Your task to perform on an android device: show emergency info Image 0: 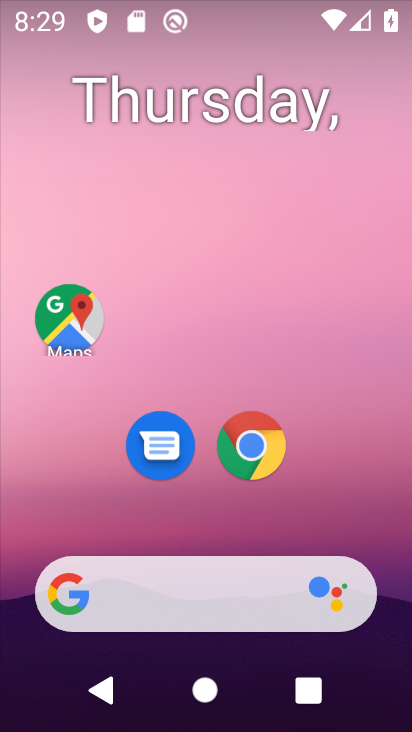
Step 0: drag from (187, 572) to (286, 102)
Your task to perform on an android device: show emergency info Image 1: 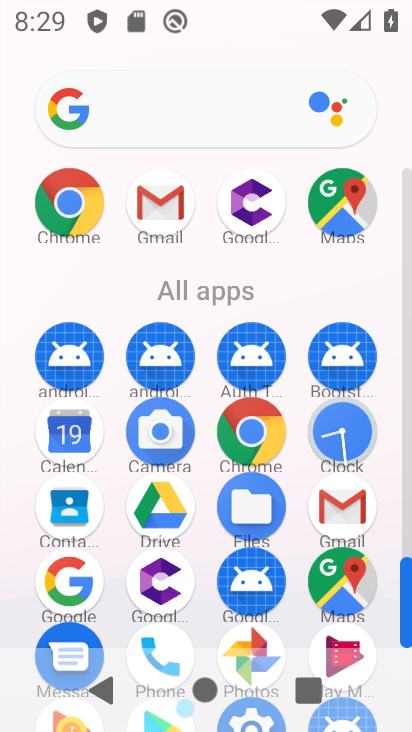
Step 1: drag from (198, 623) to (259, 231)
Your task to perform on an android device: show emergency info Image 2: 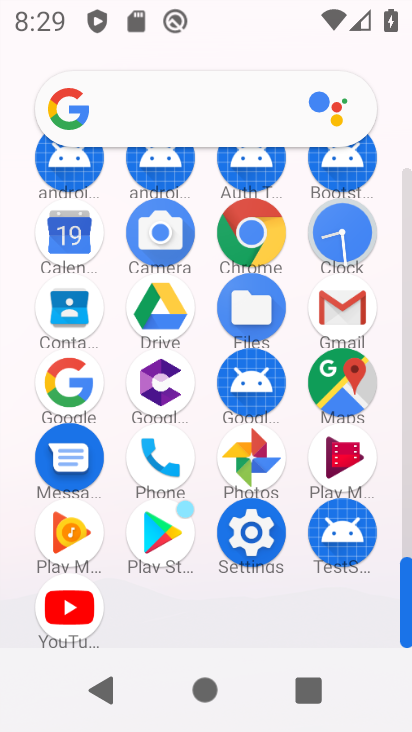
Step 2: click (250, 530)
Your task to perform on an android device: show emergency info Image 3: 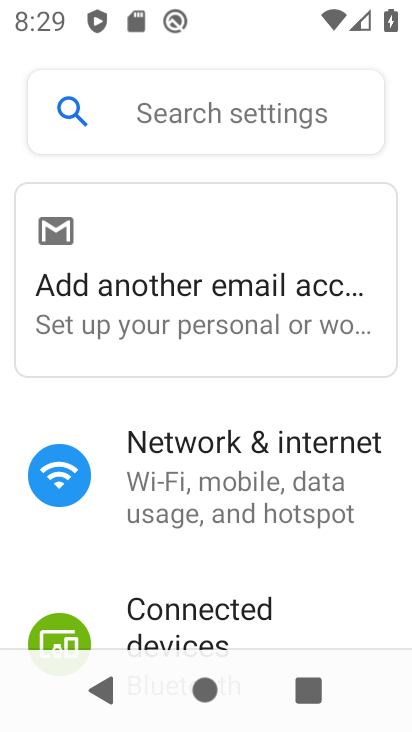
Step 3: drag from (216, 548) to (277, 145)
Your task to perform on an android device: show emergency info Image 4: 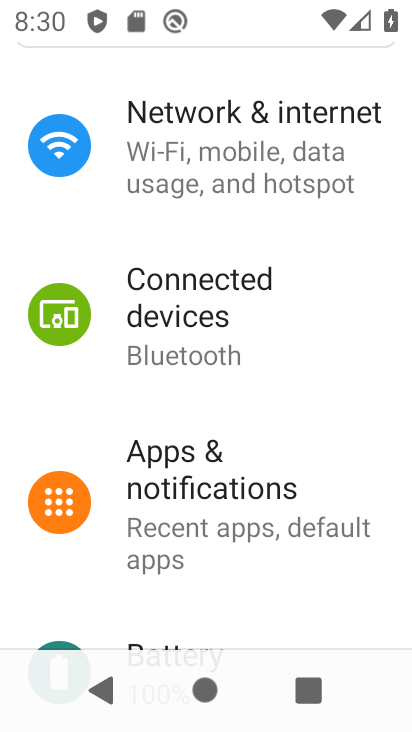
Step 4: drag from (224, 534) to (292, 67)
Your task to perform on an android device: show emergency info Image 5: 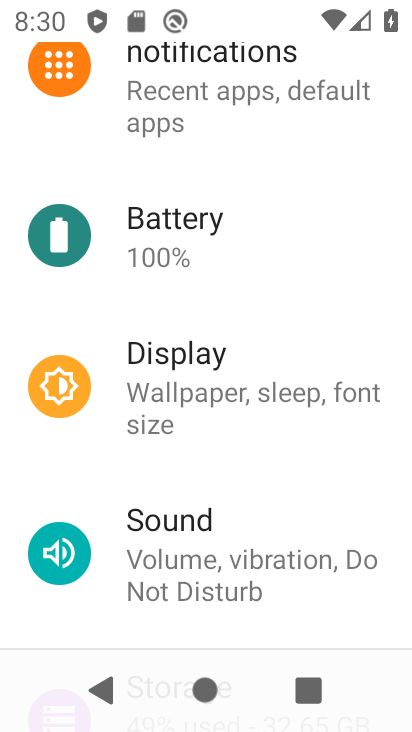
Step 5: drag from (255, 532) to (346, 40)
Your task to perform on an android device: show emergency info Image 6: 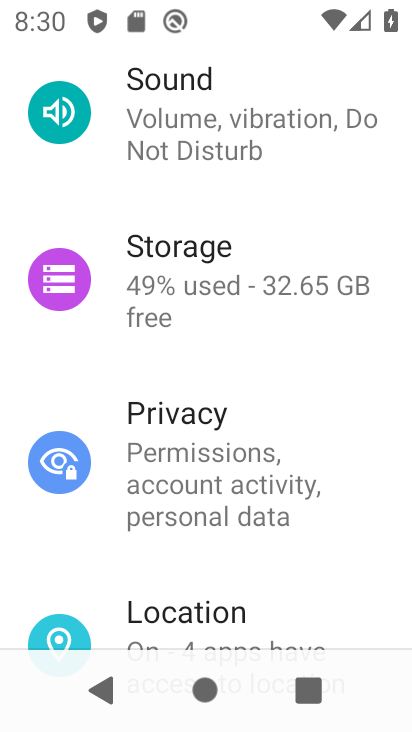
Step 6: drag from (206, 588) to (305, 99)
Your task to perform on an android device: show emergency info Image 7: 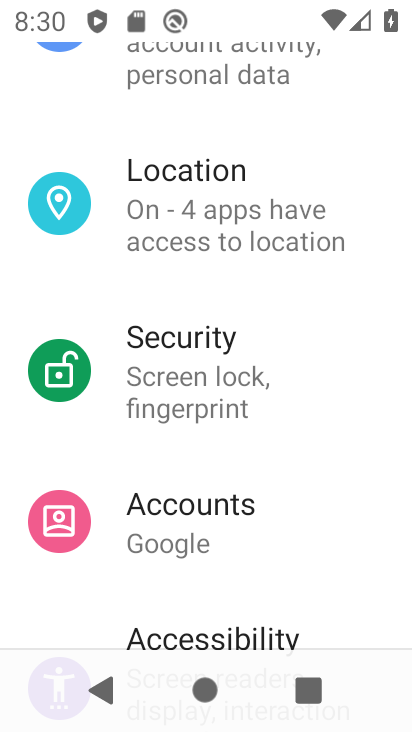
Step 7: drag from (213, 553) to (349, 0)
Your task to perform on an android device: show emergency info Image 8: 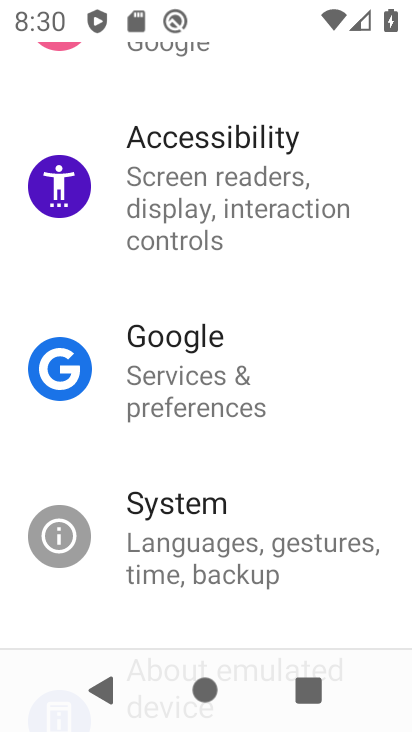
Step 8: drag from (233, 589) to (357, 94)
Your task to perform on an android device: show emergency info Image 9: 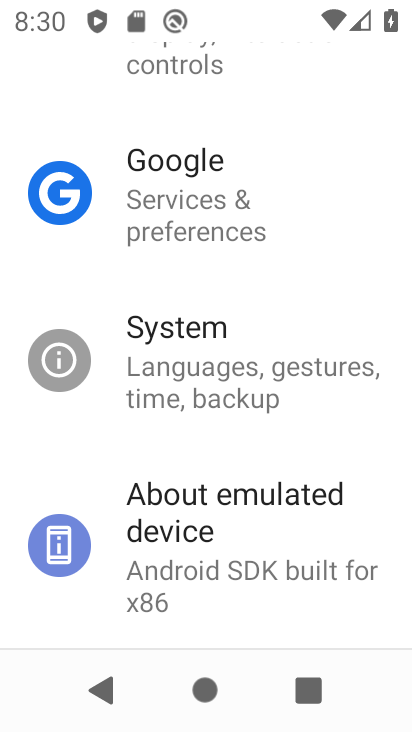
Step 9: click (200, 360)
Your task to perform on an android device: show emergency info Image 10: 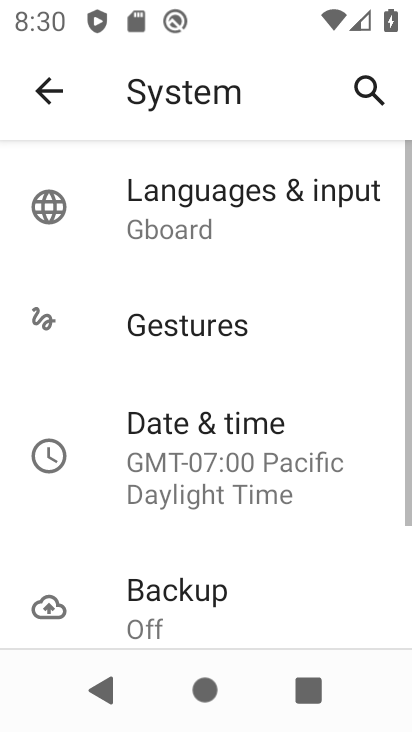
Step 10: click (42, 79)
Your task to perform on an android device: show emergency info Image 11: 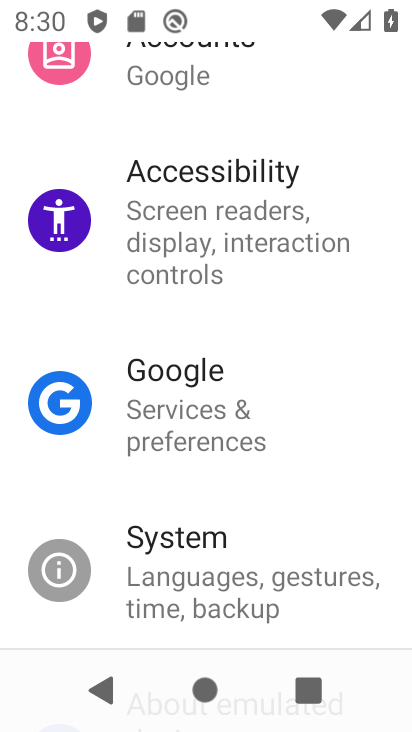
Step 11: drag from (221, 578) to (284, 136)
Your task to perform on an android device: show emergency info Image 12: 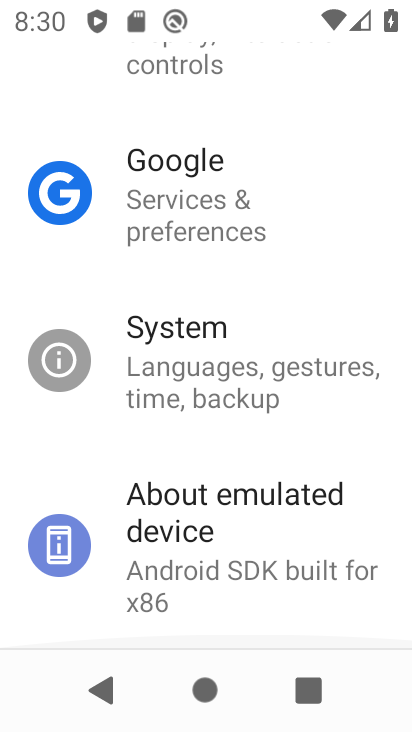
Step 12: click (237, 521)
Your task to perform on an android device: show emergency info Image 13: 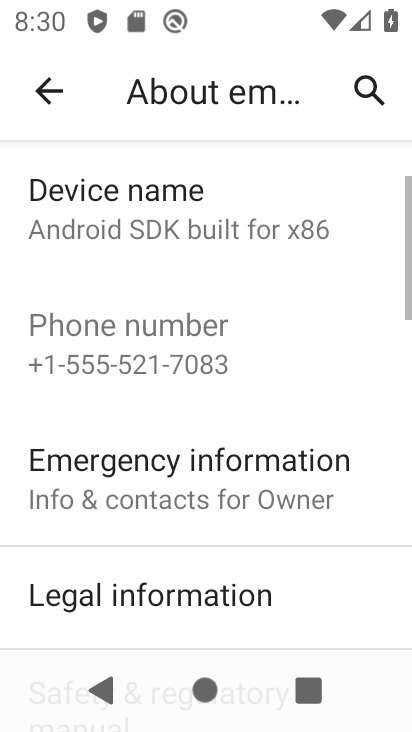
Step 13: click (191, 498)
Your task to perform on an android device: show emergency info Image 14: 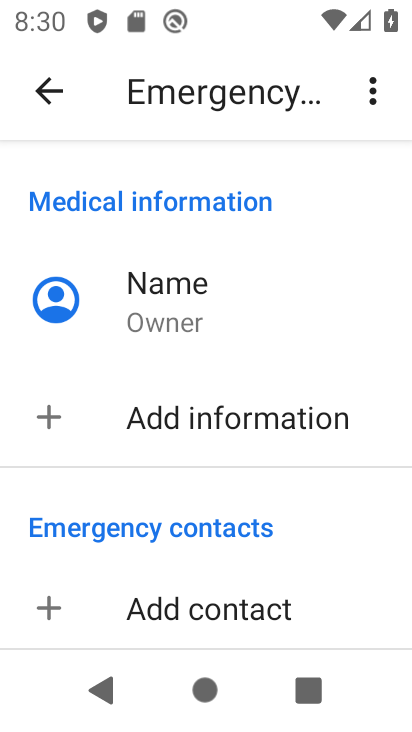
Step 14: task complete